Your task to perform on an android device: Open the Play Movies app and select the watchlist tab. Image 0: 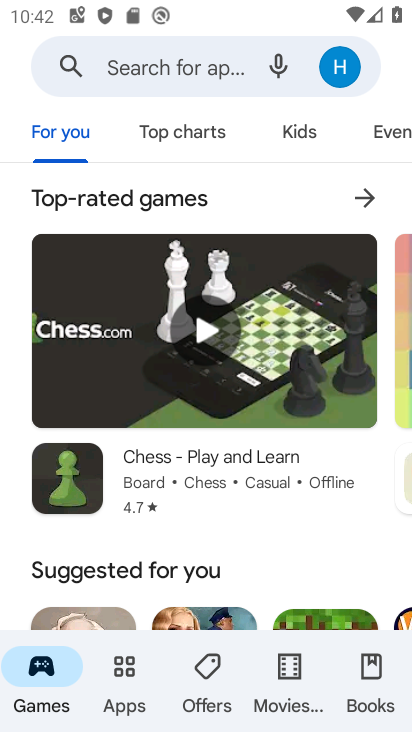
Step 0: press home button
Your task to perform on an android device: Open the Play Movies app and select the watchlist tab. Image 1: 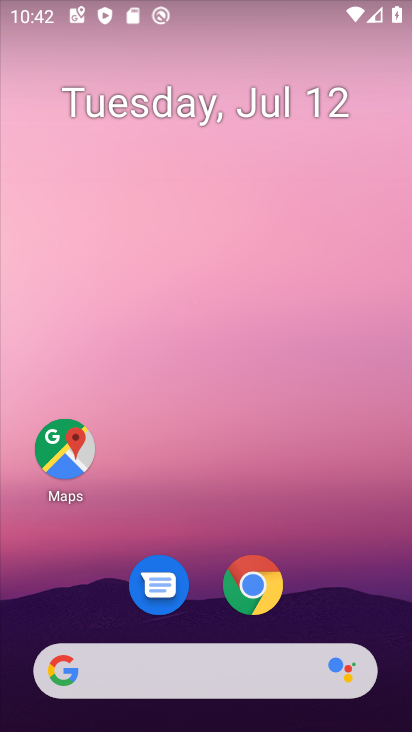
Step 1: drag from (340, 581) to (278, 12)
Your task to perform on an android device: Open the Play Movies app and select the watchlist tab. Image 2: 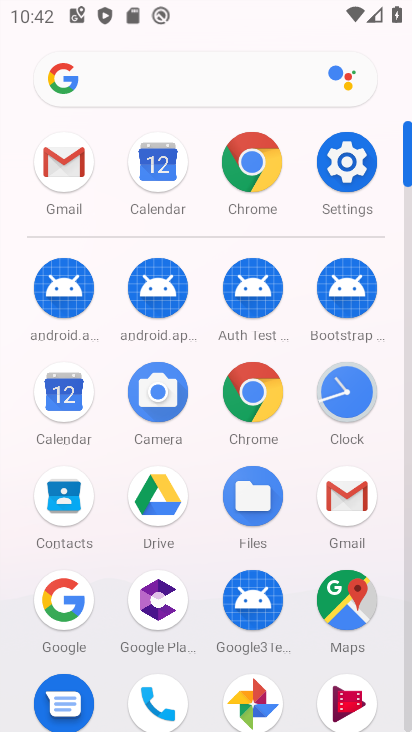
Step 2: click (349, 702)
Your task to perform on an android device: Open the Play Movies app and select the watchlist tab. Image 3: 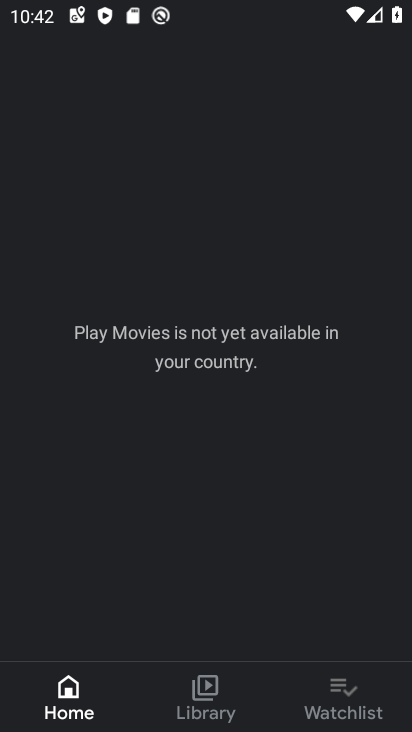
Step 3: click (343, 693)
Your task to perform on an android device: Open the Play Movies app and select the watchlist tab. Image 4: 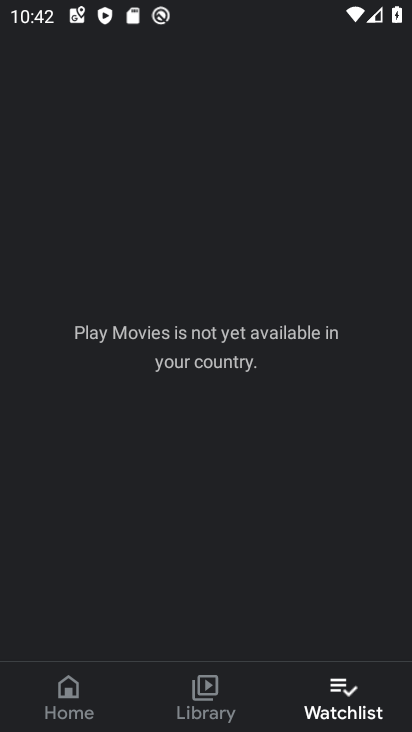
Step 4: task complete